Your task to perform on an android device: Open CNN.com Image 0: 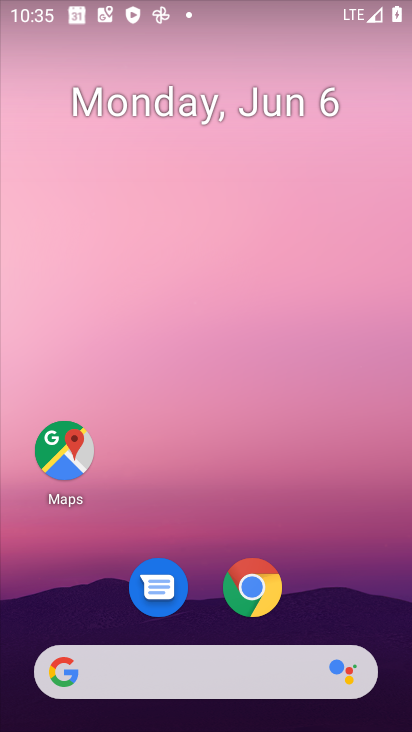
Step 0: click (245, 690)
Your task to perform on an android device: Open CNN.com Image 1: 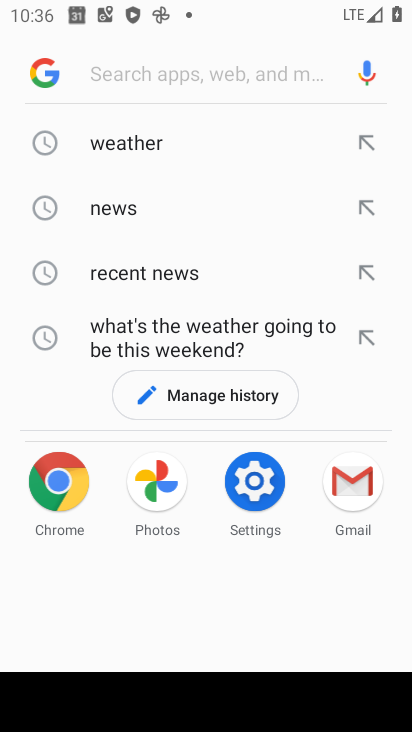
Step 1: type "cnn.com"
Your task to perform on an android device: Open CNN.com Image 2: 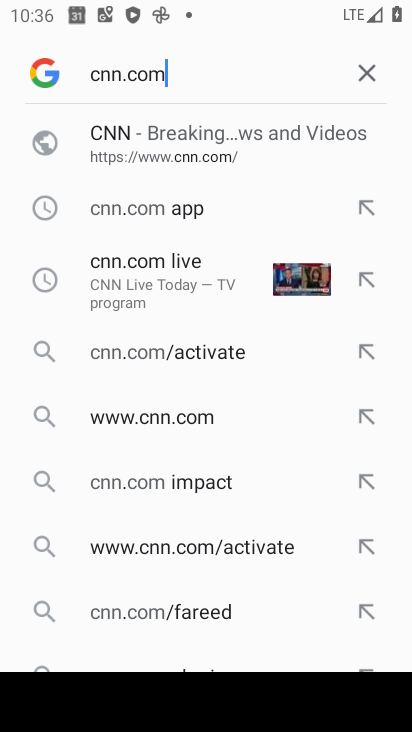
Step 2: click (274, 141)
Your task to perform on an android device: Open CNN.com Image 3: 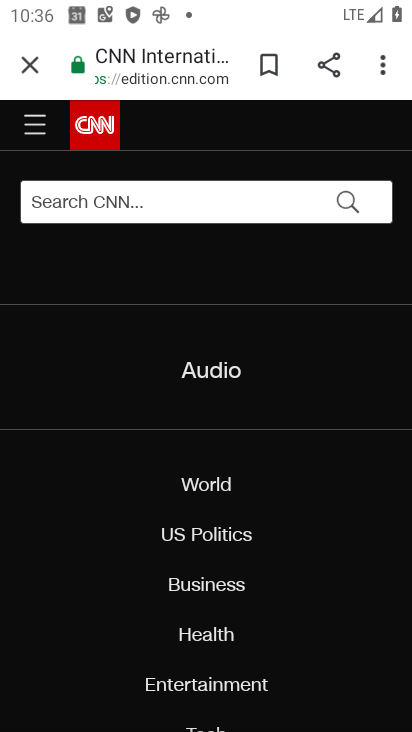
Step 3: task complete